Your task to perform on an android device: open chrome and create a bookmark for the current page Image 0: 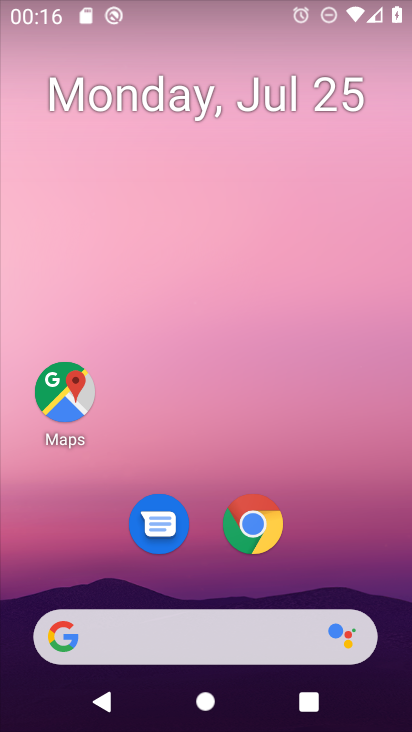
Step 0: press home button
Your task to perform on an android device: open chrome and create a bookmark for the current page Image 1: 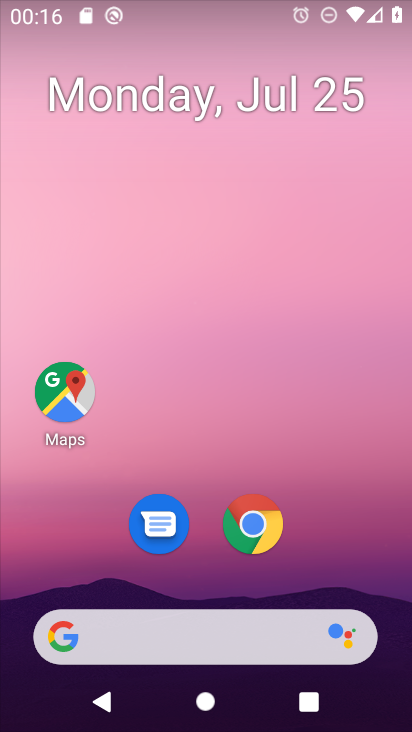
Step 1: click (256, 542)
Your task to perform on an android device: open chrome and create a bookmark for the current page Image 2: 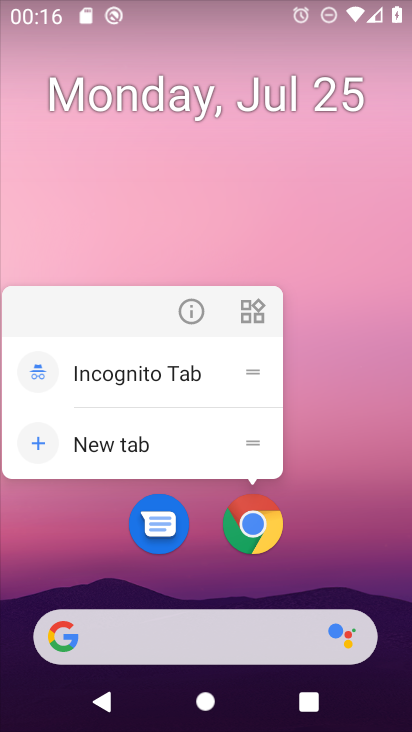
Step 2: click (257, 529)
Your task to perform on an android device: open chrome and create a bookmark for the current page Image 3: 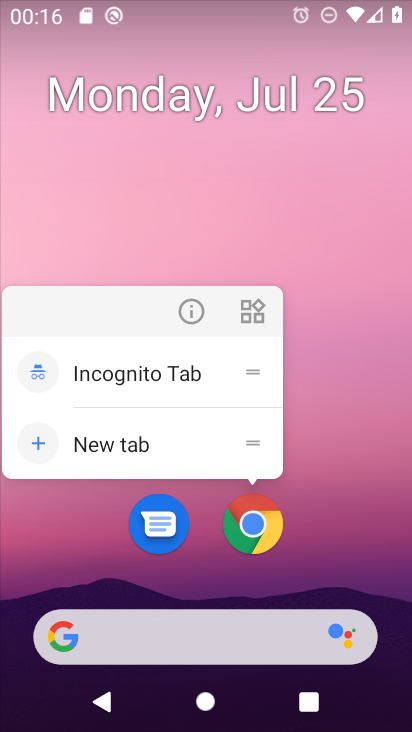
Step 3: click (257, 530)
Your task to perform on an android device: open chrome and create a bookmark for the current page Image 4: 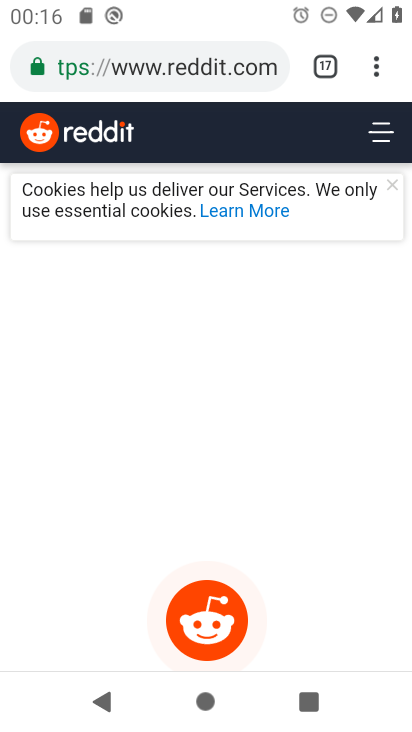
Step 4: click (370, 89)
Your task to perform on an android device: open chrome and create a bookmark for the current page Image 5: 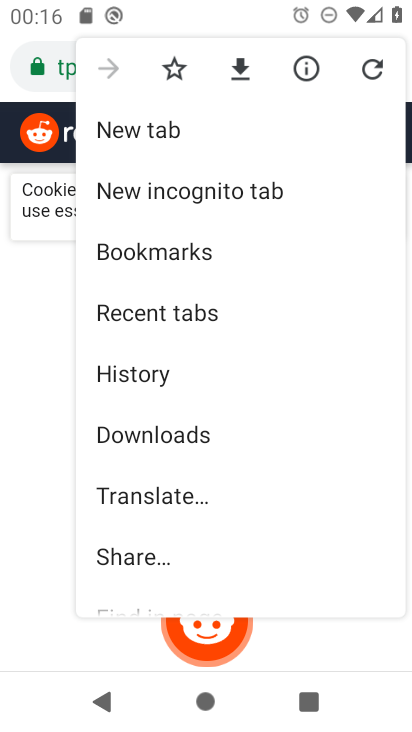
Step 5: click (175, 68)
Your task to perform on an android device: open chrome and create a bookmark for the current page Image 6: 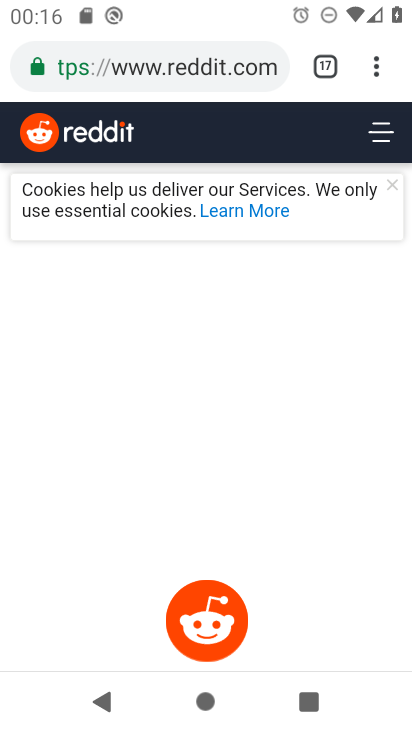
Step 6: task complete